Your task to perform on an android device: turn on improve location accuracy Image 0: 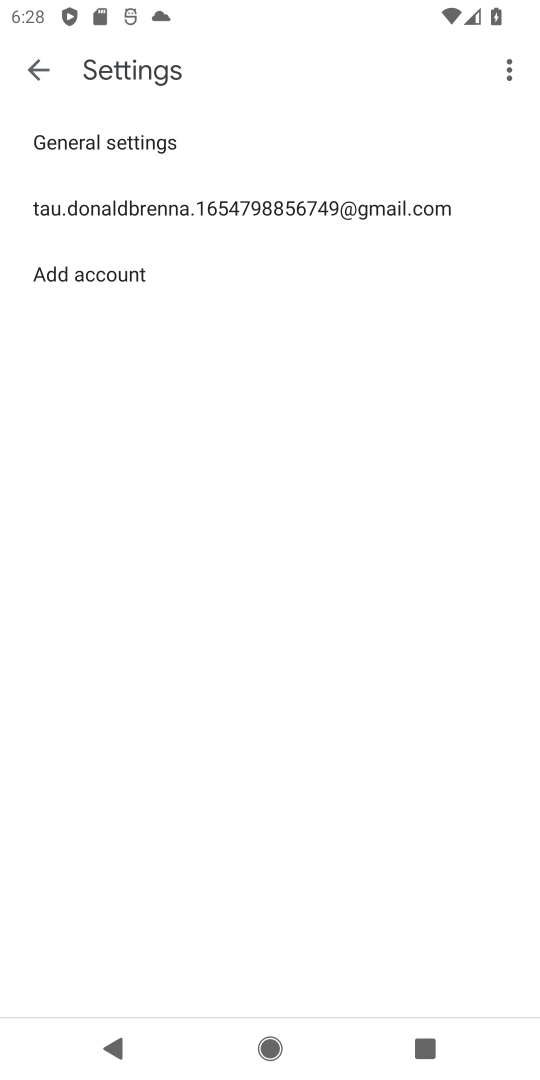
Step 0: press back button
Your task to perform on an android device: turn on improve location accuracy Image 1: 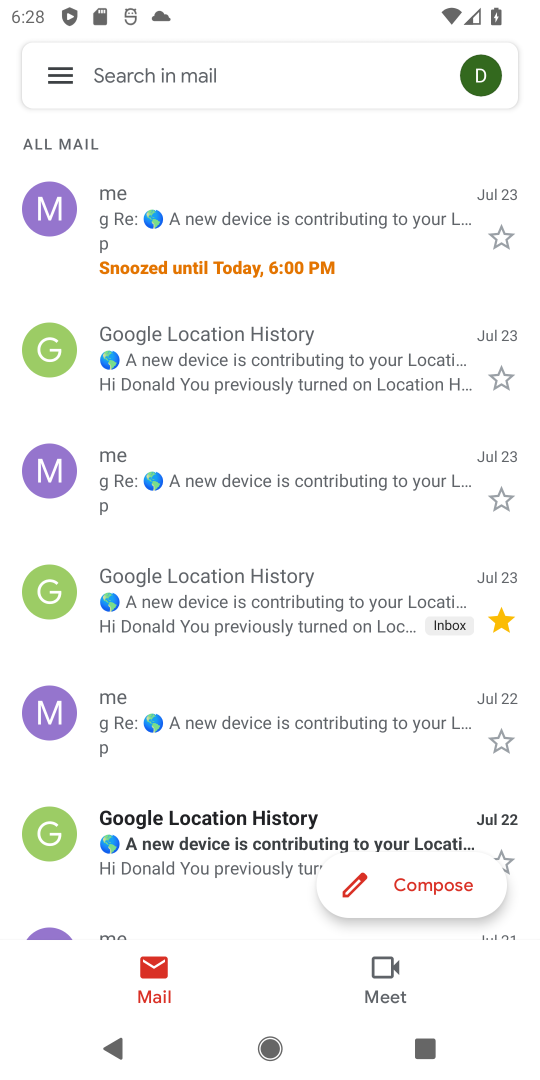
Step 1: press back button
Your task to perform on an android device: turn on improve location accuracy Image 2: 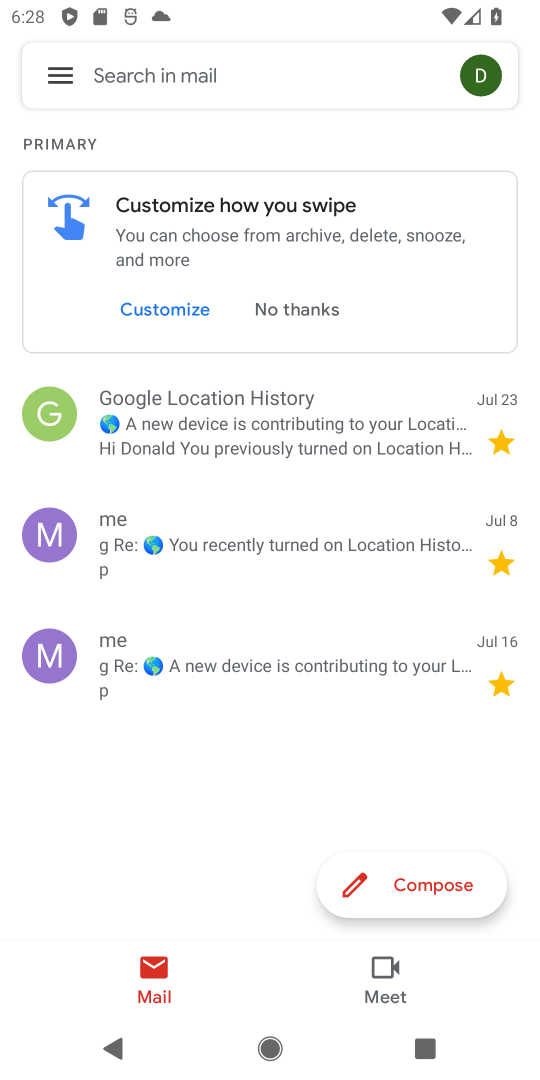
Step 2: press back button
Your task to perform on an android device: turn on improve location accuracy Image 3: 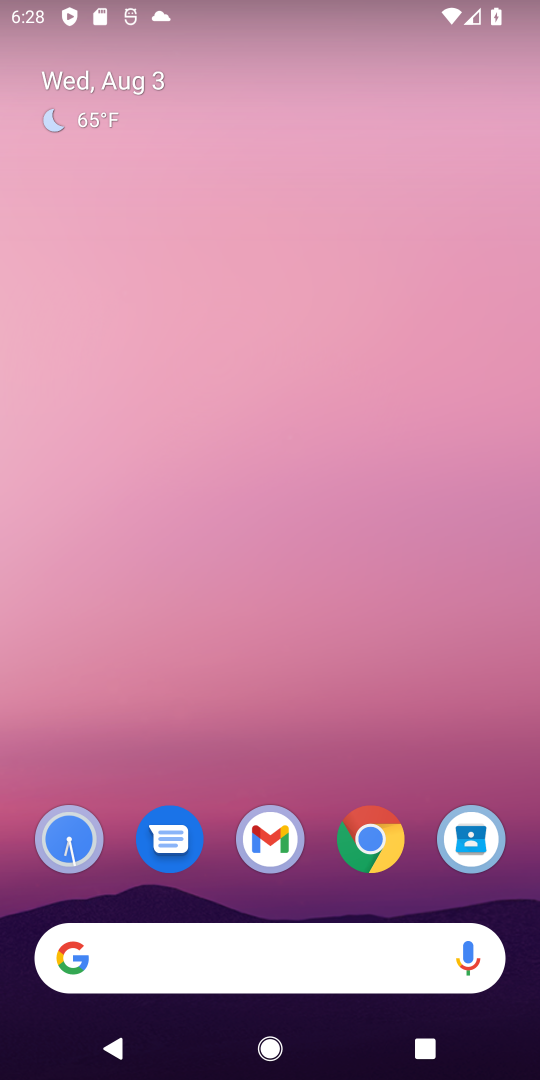
Step 3: drag from (250, 455) to (291, 89)
Your task to perform on an android device: turn on improve location accuracy Image 4: 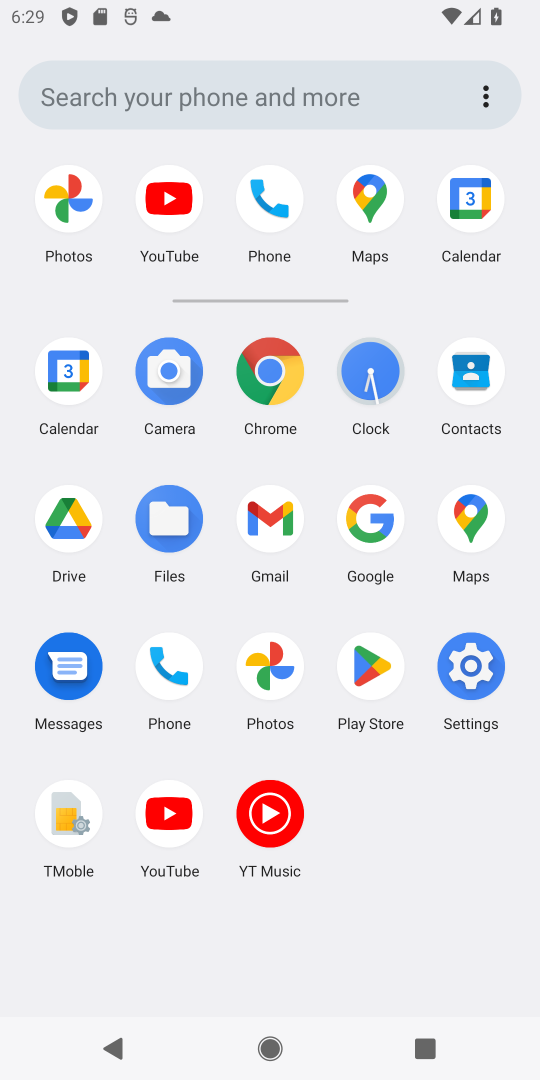
Step 4: click (485, 661)
Your task to perform on an android device: turn on improve location accuracy Image 5: 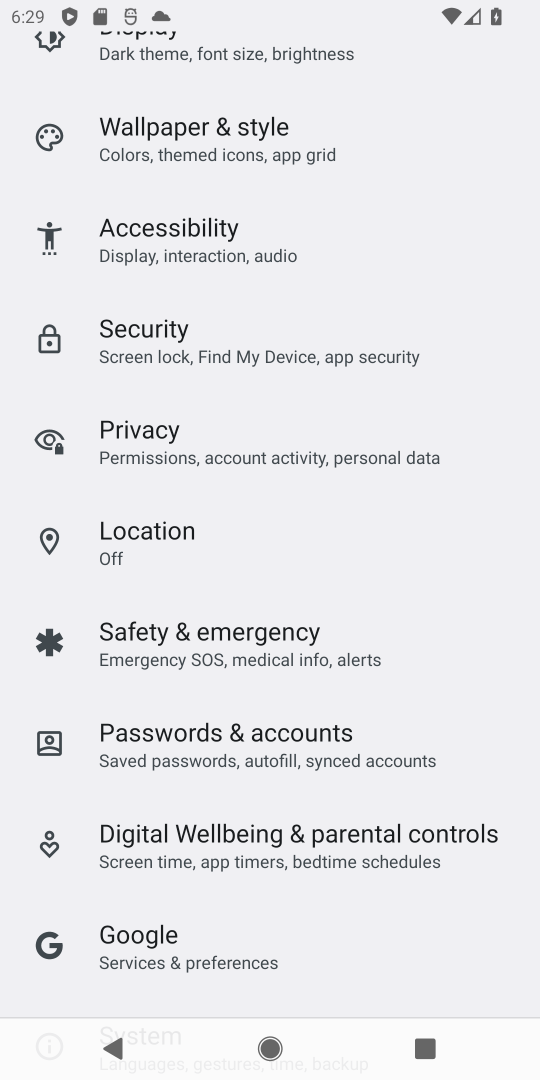
Step 5: click (123, 533)
Your task to perform on an android device: turn on improve location accuracy Image 6: 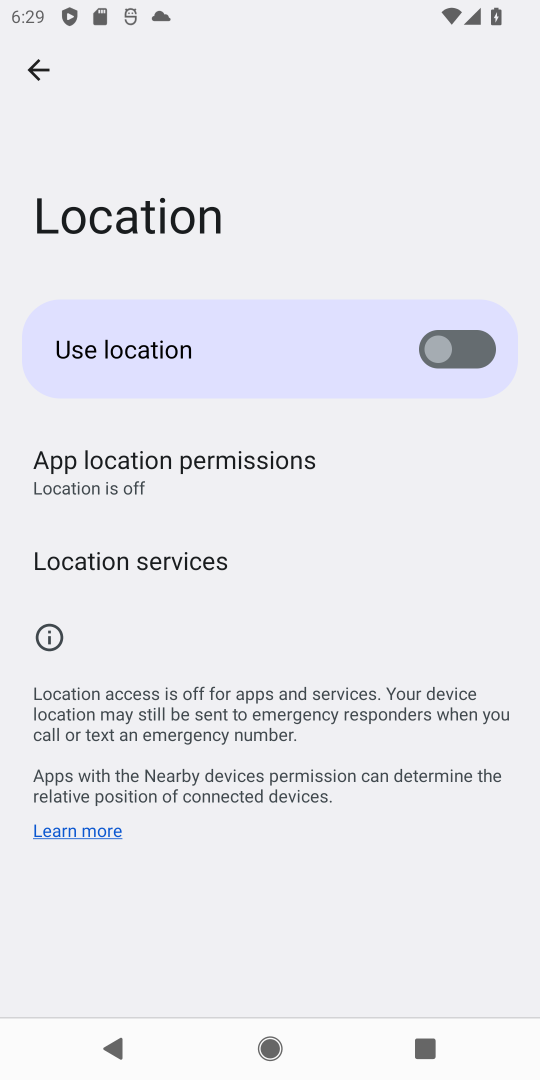
Step 6: drag from (229, 822) to (309, 327)
Your task to perform on an android device: turn on improve location accuracy Image 7: 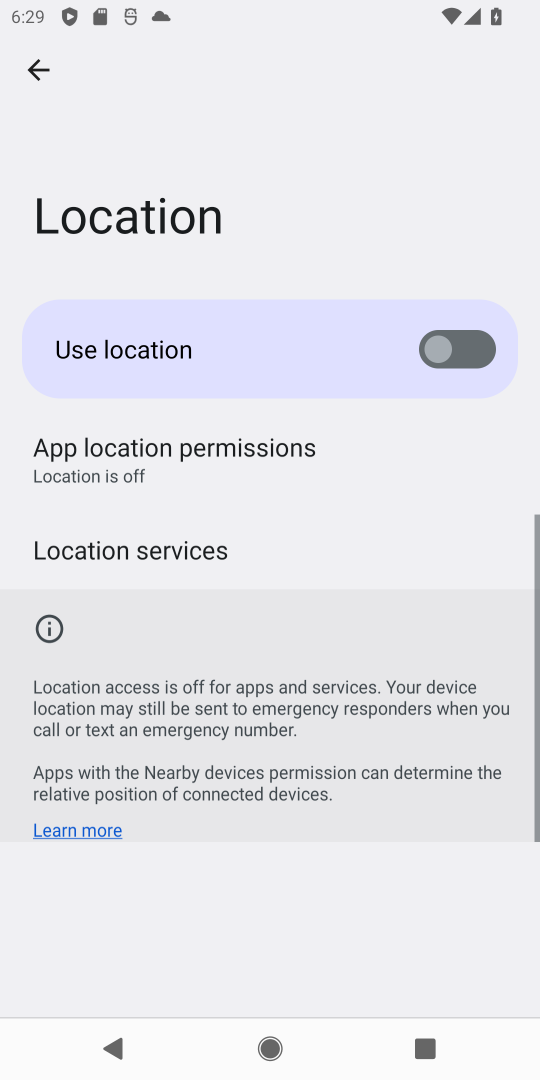
Step 7: click (454, 334)
Your task to perform on an android device: turn on improve location accuracy Image 8: 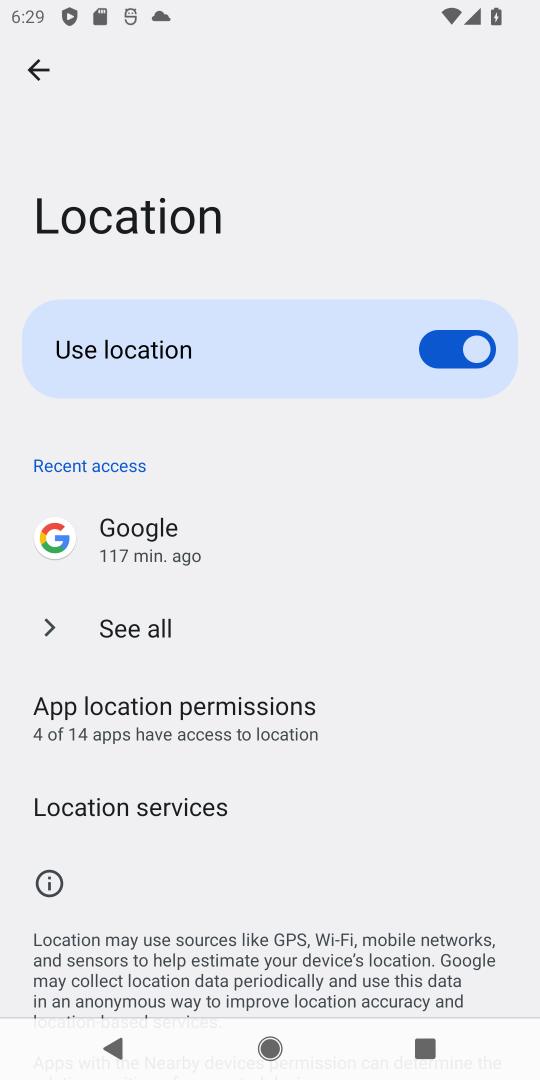
Step 8: click (135, 626)
Your task to perform on an android device: turn on improve location accuracy Image 9: 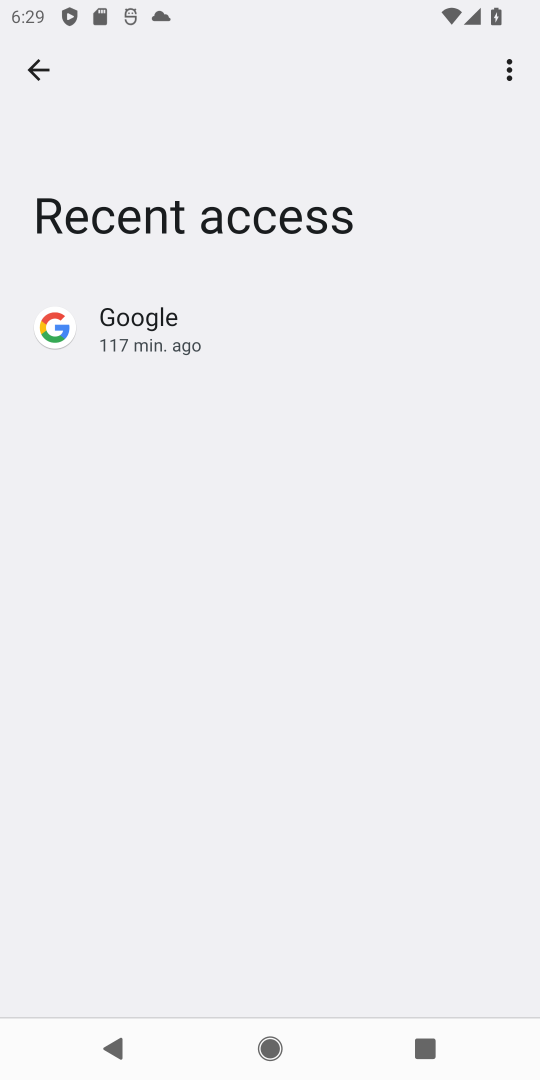
Step 9: drag from (227, 783) to (351, 261)
Your task to perform on an android device: turn on improve location accuracy Image 10: 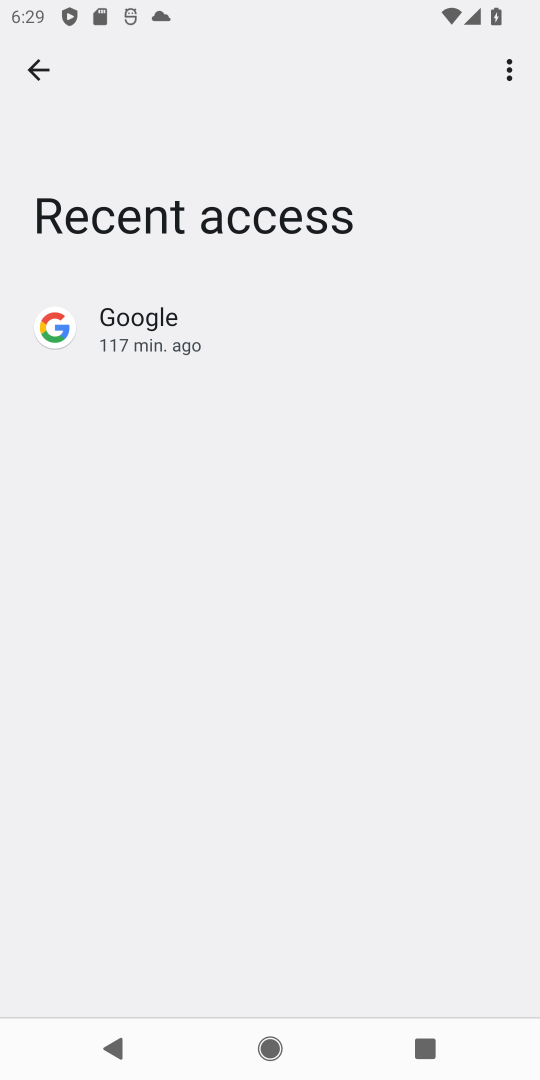
Step 10: click (29, 75)
Your task to perform on an android device: turn on improve location accuracy Image 11: 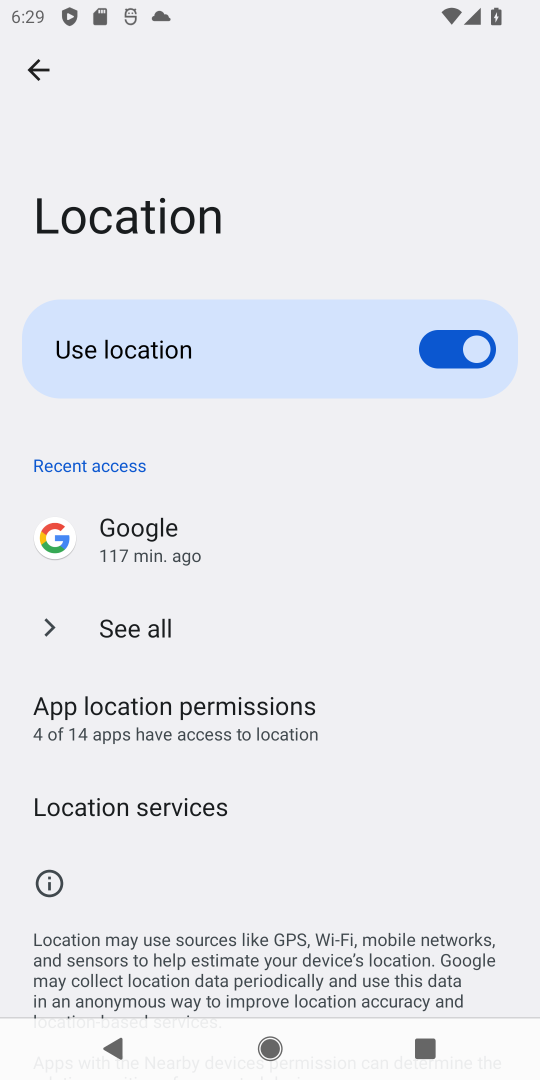
Step 11: drag from (239, 846) to (344, 284)
Your task to perform on an android device: turn on improve location accuracy Image 12: 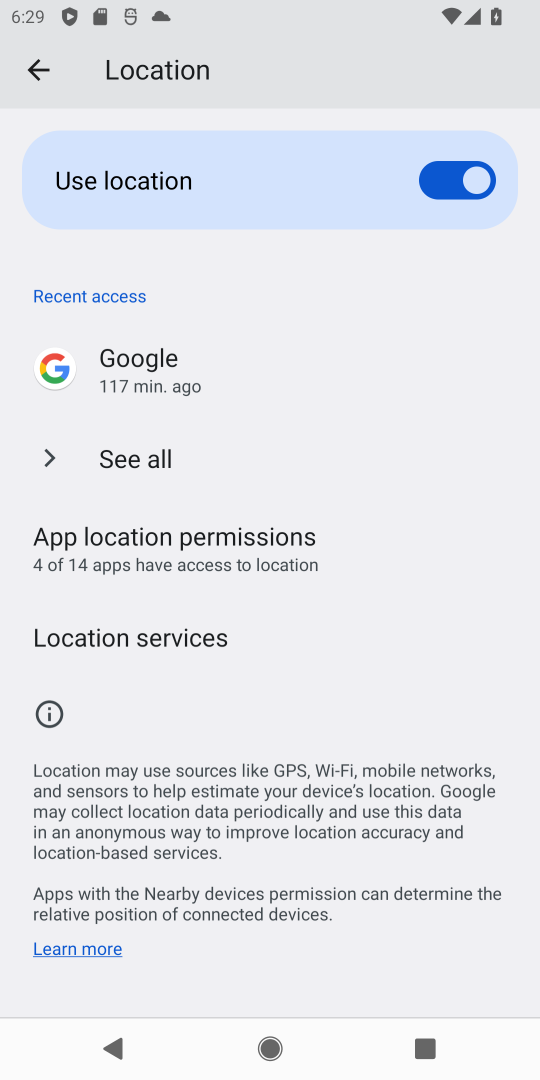
Step 12: click (191, 629)
Your task to perform on an android device: turn on improve location accuracy Image 13: 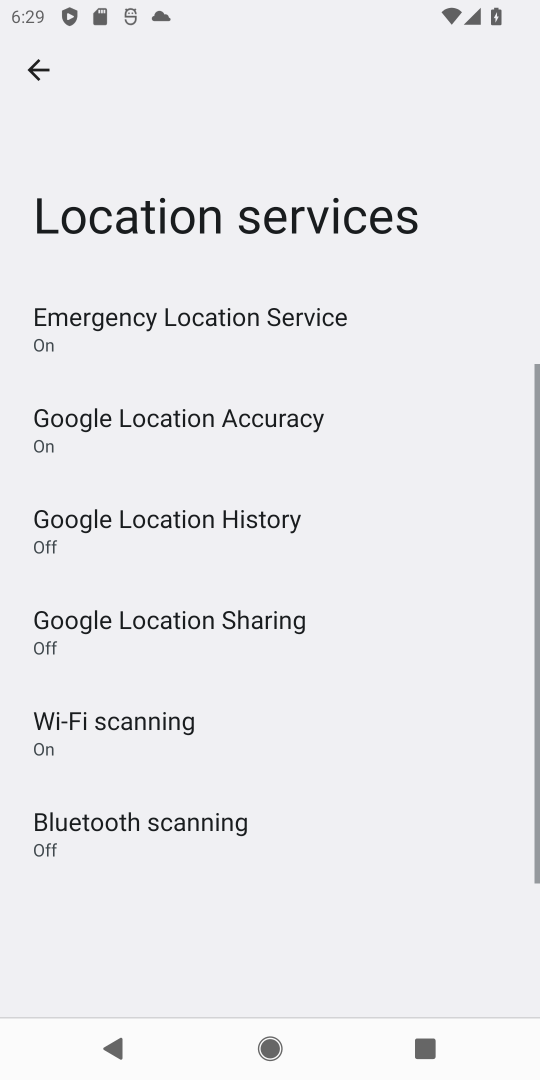
Step 13: click (243, 439)
Your task to perform on an android device: turn on improve location accuracy Image 14: 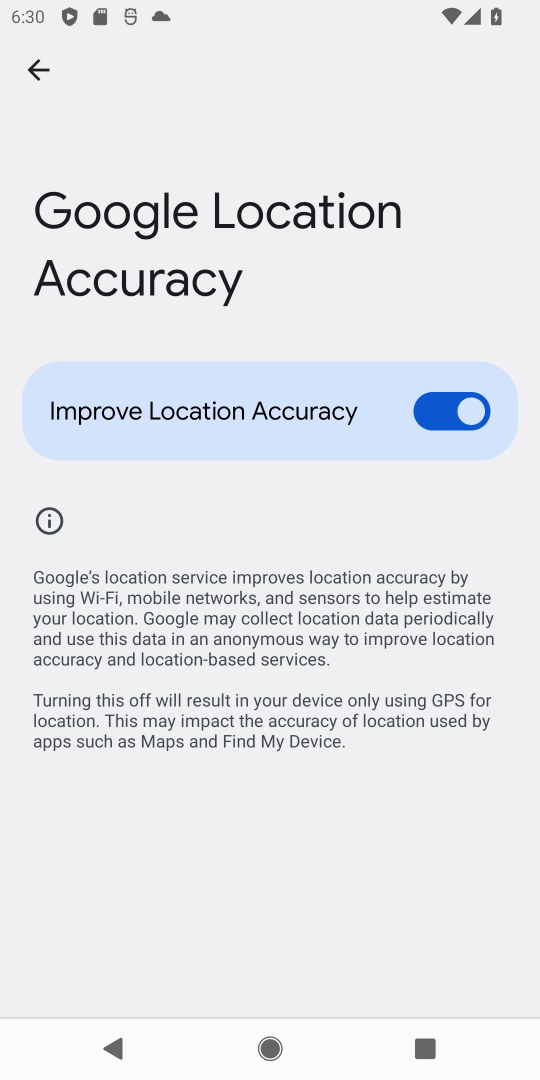
Step 14: task complete